Your task to perform on an android device: Is it going to rain today? Image 0: 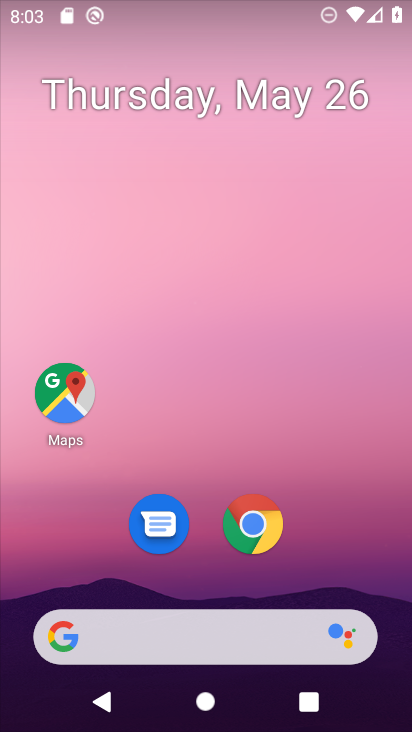
Step 0: click (201, 641)
Your task to perform on an android device: Is it going to rain today? Image 1: 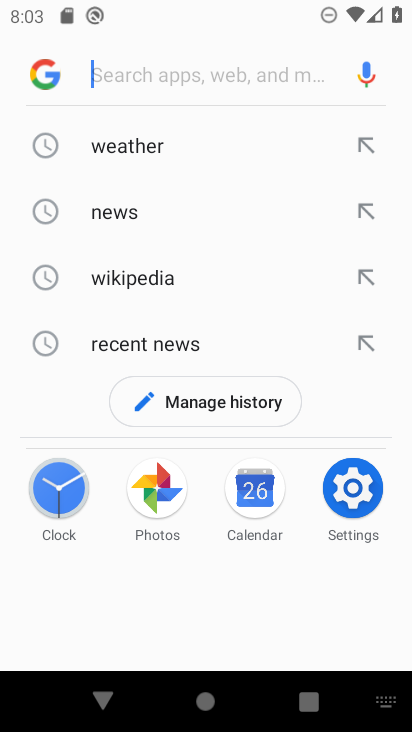
Step 1: click (122, 146)
Your task to perform on an android device: Is it going to rain today? Image 2: 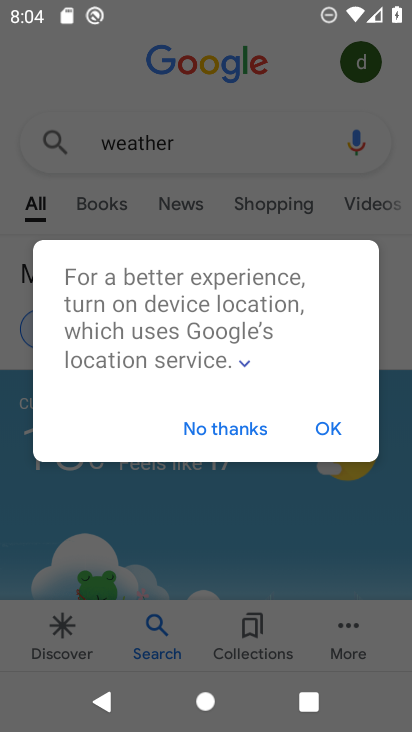
Step 2: click (334, 421)
Your task to perform on an android device: Is it going to rain today? Image 3: 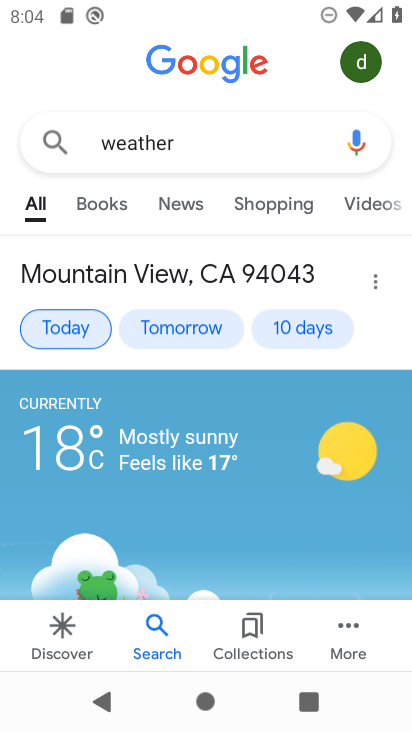
Step 3: click (81, 315)
Your task to perform on an android device: Is it going to rain today? Image 4: 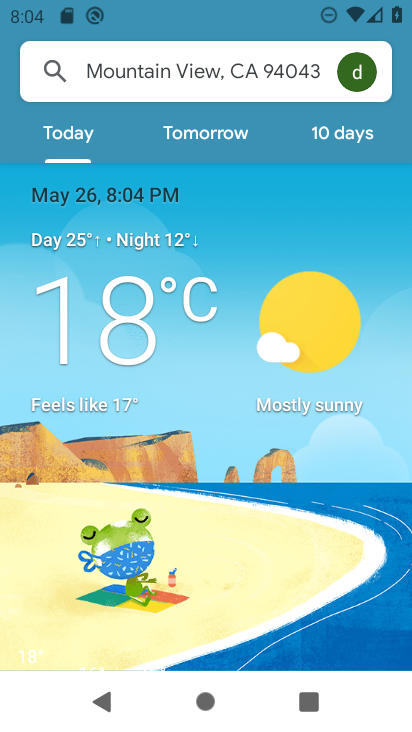
Step 4: task complete